Your task to perform on an android device: Open Google Chrome and click the shortcut for Amazon.com Image 0: 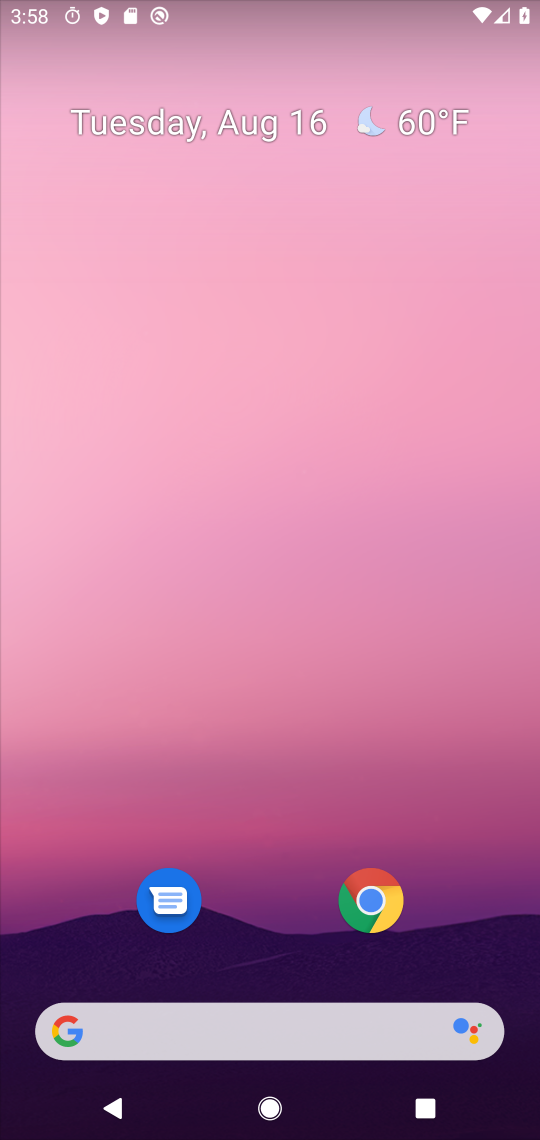
Step 0: drag from (277, 991) to (273, 124)
Your task to perform on an android device: Open Google Chrome and click the shortcut for Amazon.com Image 1: 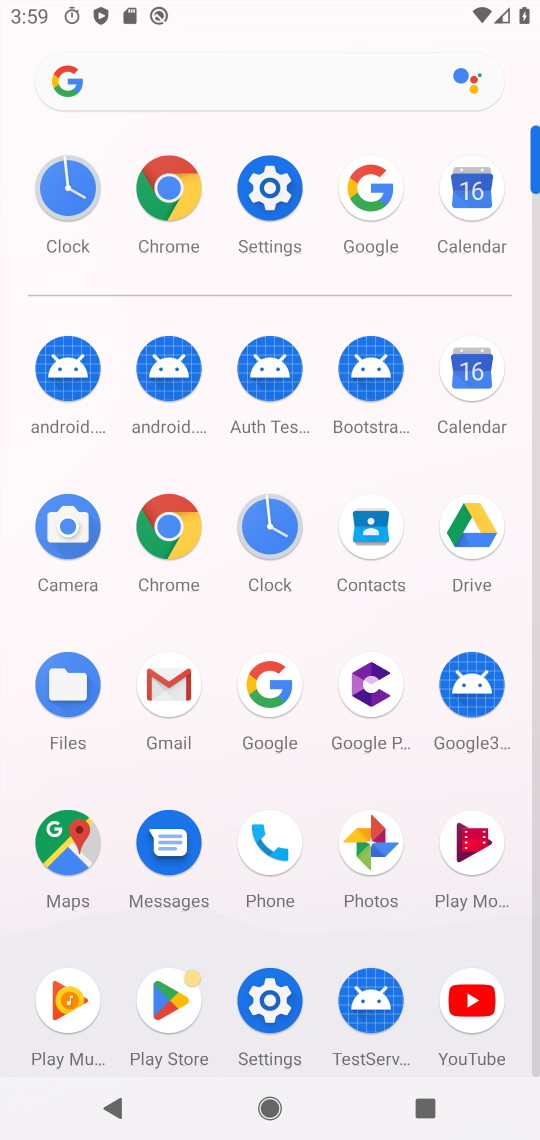
Step 1: click (162, 522)
Your task to perform on an android device: Open Google Chrome and click the shortcut for Amazon.com Image 2: 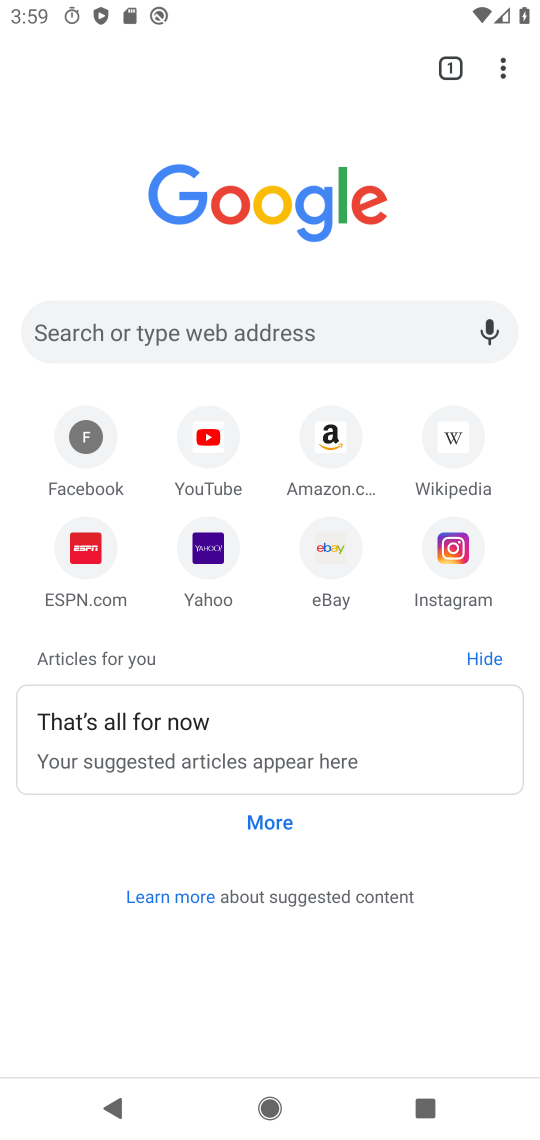
Step 2: click (336, 448)
Your task to perform on an android device: Open Google Chrome and click the shortcut for Amazon.com Image 3: 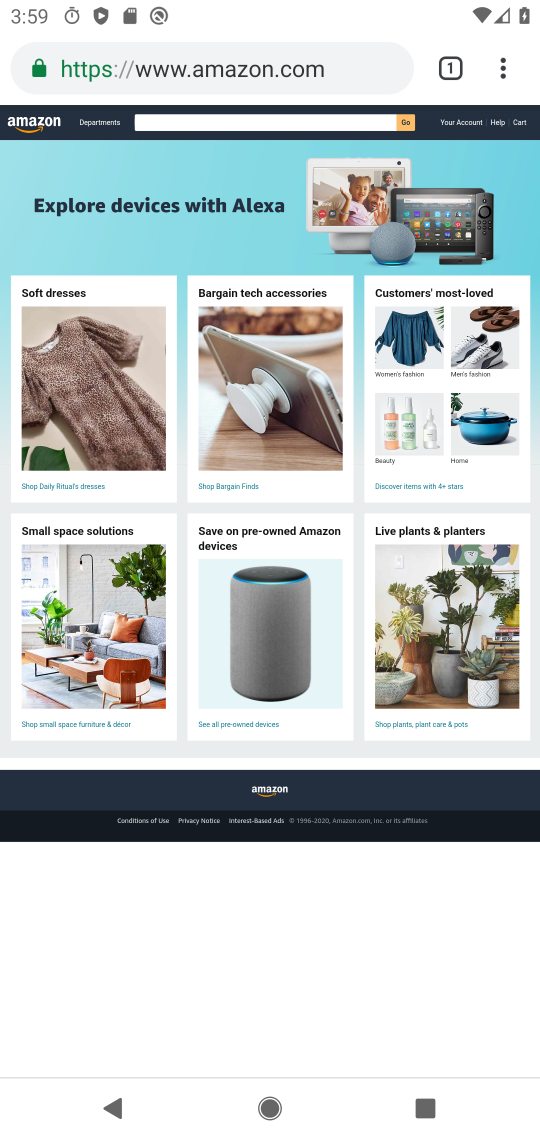
Step 3: task complete